Your task to perform on an android device: toggle pop-ups in chrome Image 0: 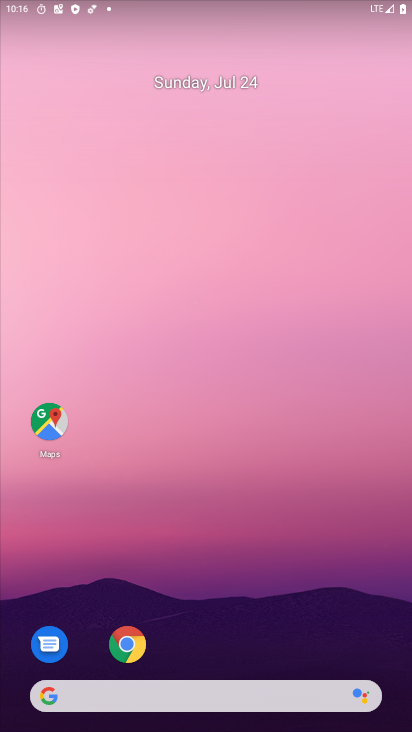
Step 0: click (128, 649)
Your task to perform on an android device: toggle pop-ups in chrome Image 1: 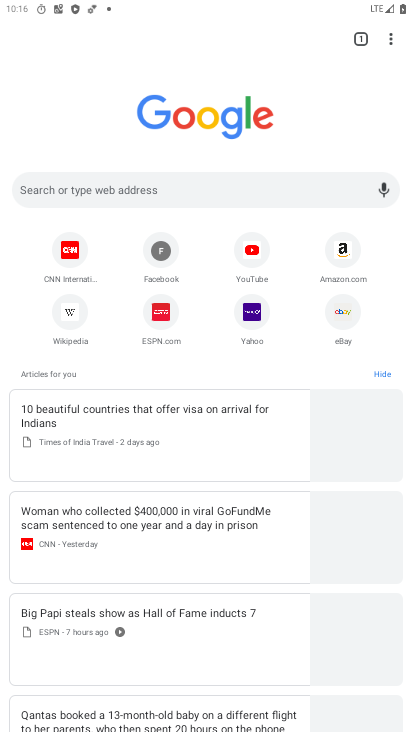
Step 1: click (384, 42)
Your task to perform on an android device: toggle pop-ups in chrome Image 2: 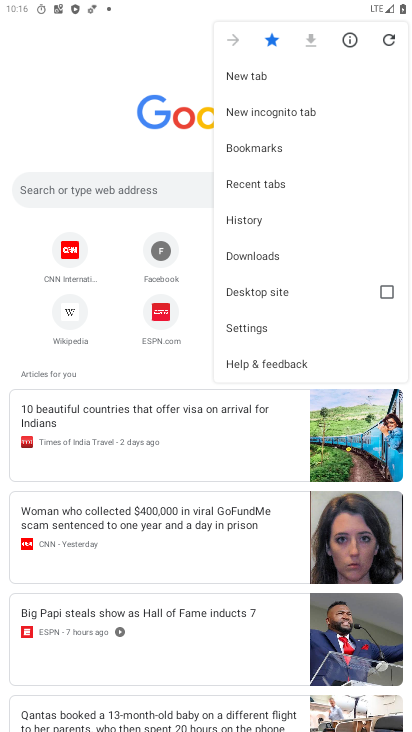
Step 2: click (236, 329)
Your task to perform on an android device: toggle pop-ups in chrome Image 3: 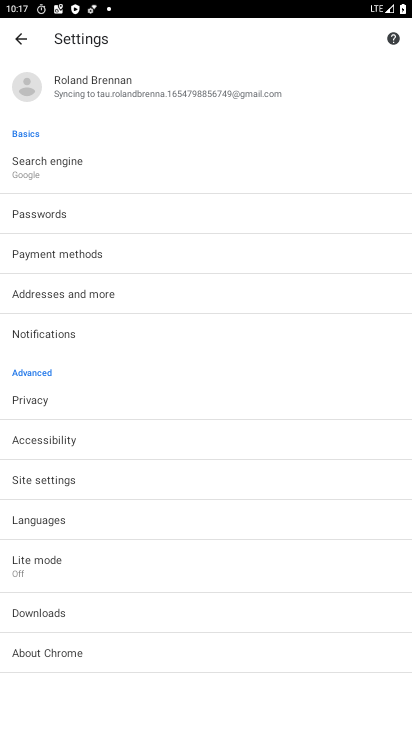
Step 3: click (48, 474)
Your task to perform on an android device: toggle pop-ups in chrome Image 4: 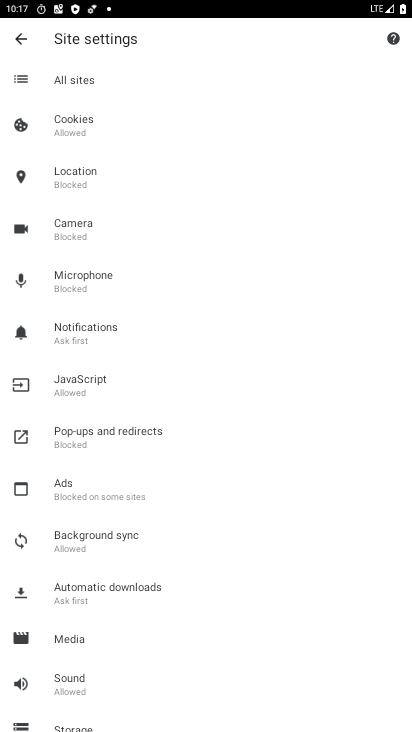
Step 4: click (131, 436)
Your task to perform on an android device: toggle pop-ups in chrome Image 5: 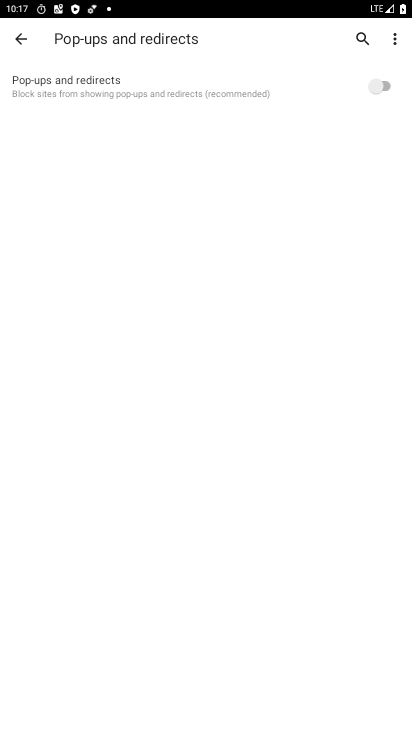
Step 5: click (386, 82)
Your task to perform on an android device: toggle pop-ups in chrome Image 6: 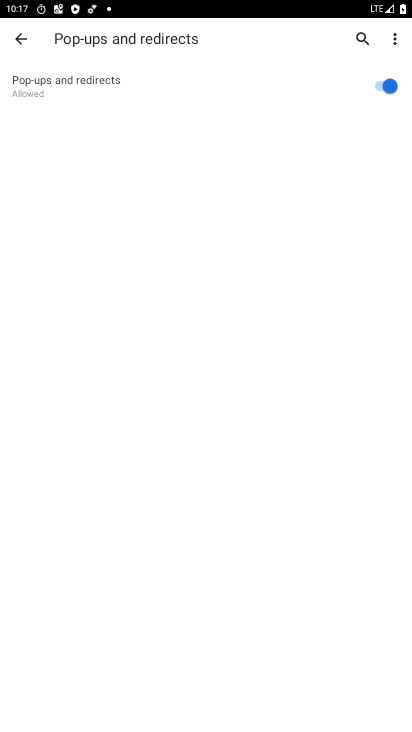
Step 6: task complete